Your task to perform on an android device: turn off translation in the chrome app Image 0: 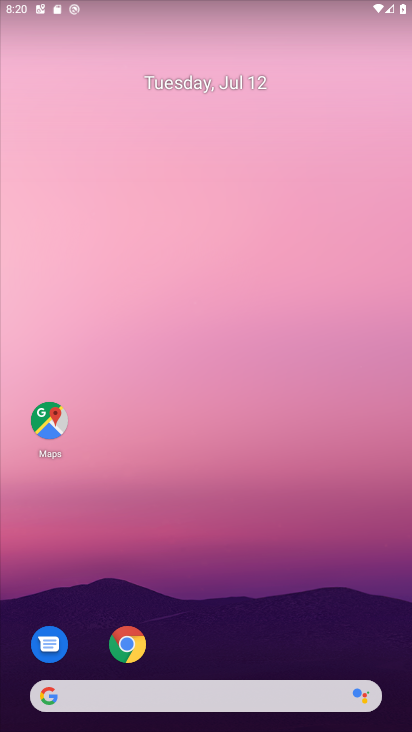
Step 0: drag from (242, 675) to (240, 202)
Your task to perform on an android device: turn off translation in the chrome app Image 1: 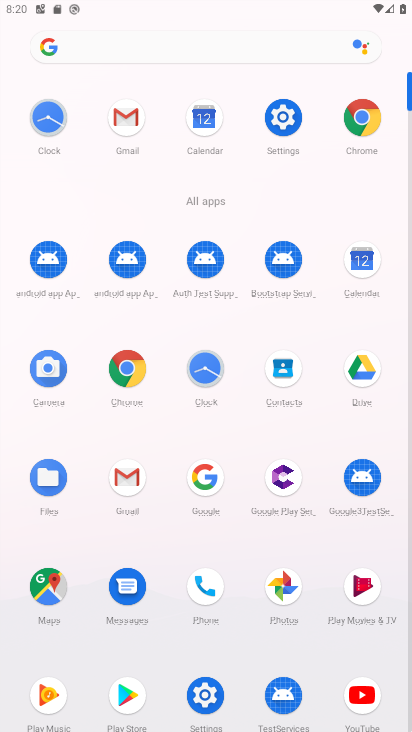
Step 1: click (359, 114)
Your task to perform on an android device: turn off translation in the chrome app Image 2: 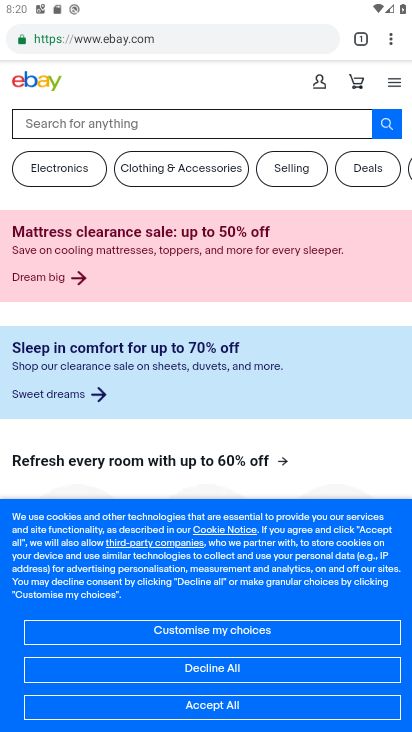
Step 2: drag from (399, 54) to (243, 476)
Your task to perform on an android device: turn off translation in the chrome app Image 3: 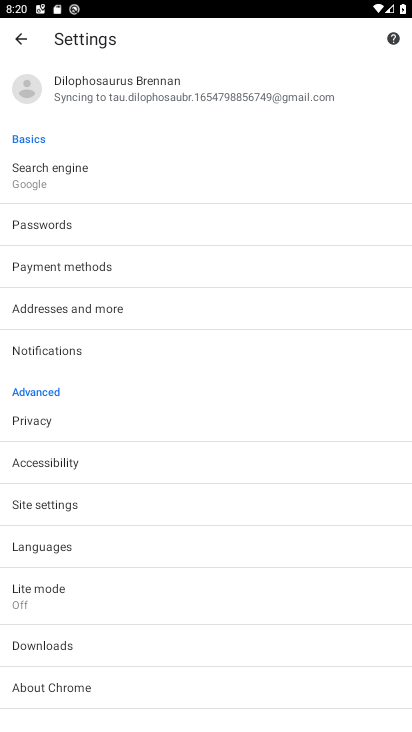
Step 3: click (47, 544)
Your task to perform on an android device: turn off translation in the chrome app Image 4: 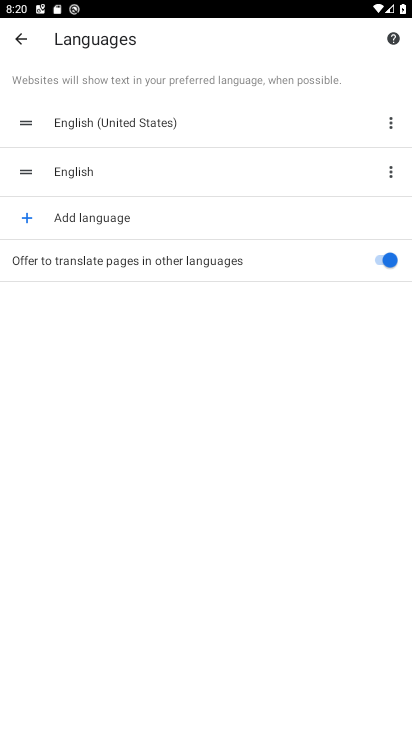
Step 4: click (392, 262)
Your task to perform on an android device: turn off translation in the chrome app Image 5: 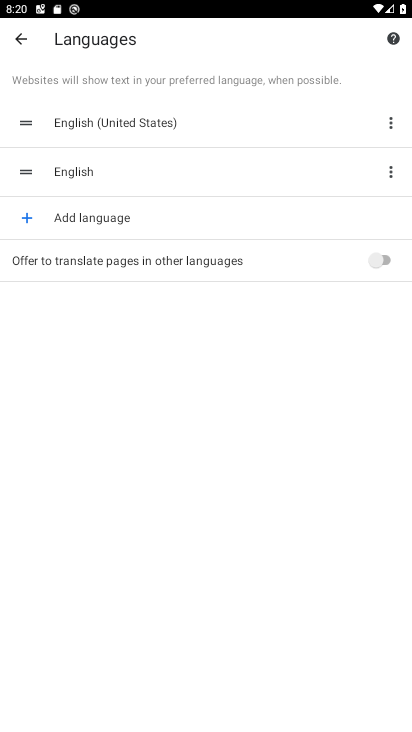
Step 5: task complete